Your task to perform on an android device: open app "Cash App" (install if not already installed) Image 0: 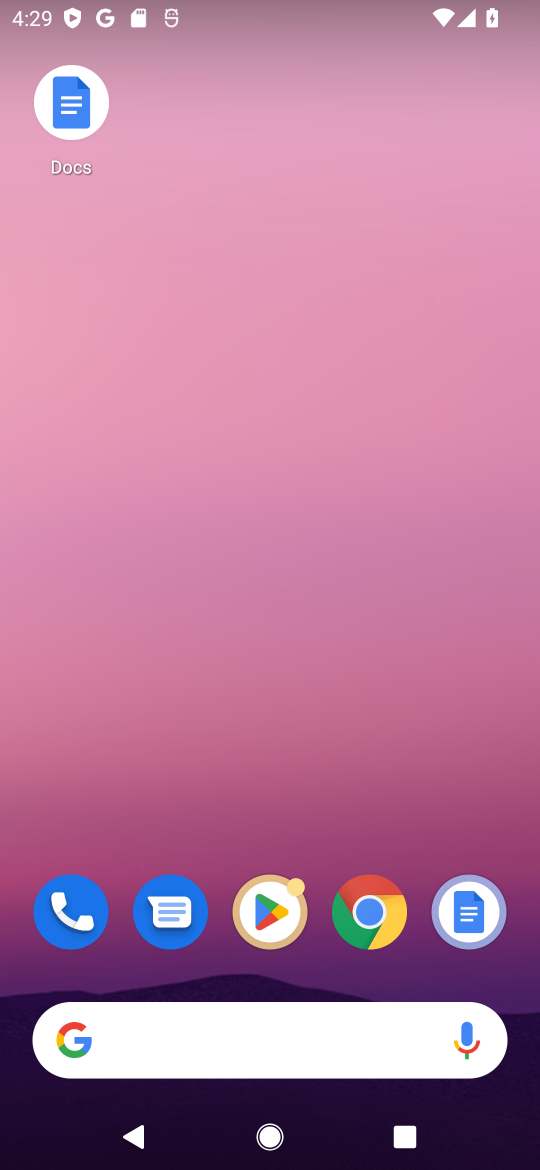
Step 0: drag from (208, 968) to (279, 276)
Your task to perform on an android device: open app "Cash App" (install if not already installed) Image 1: 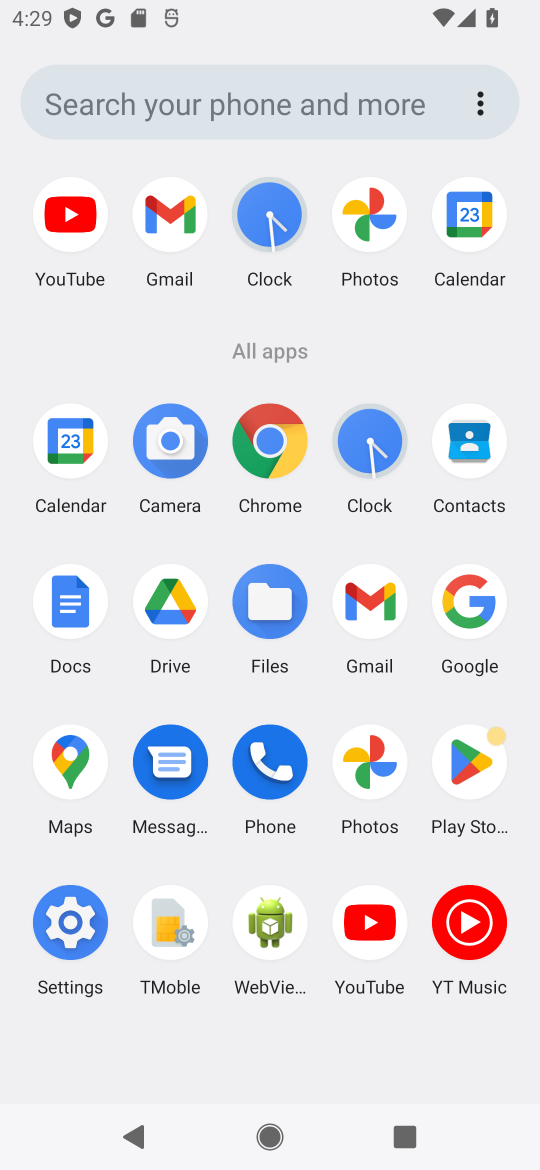
Step 1: click (471, 761)
Your task to perform on an android device: open app "Cash App" (install if not already installed) Image 2: 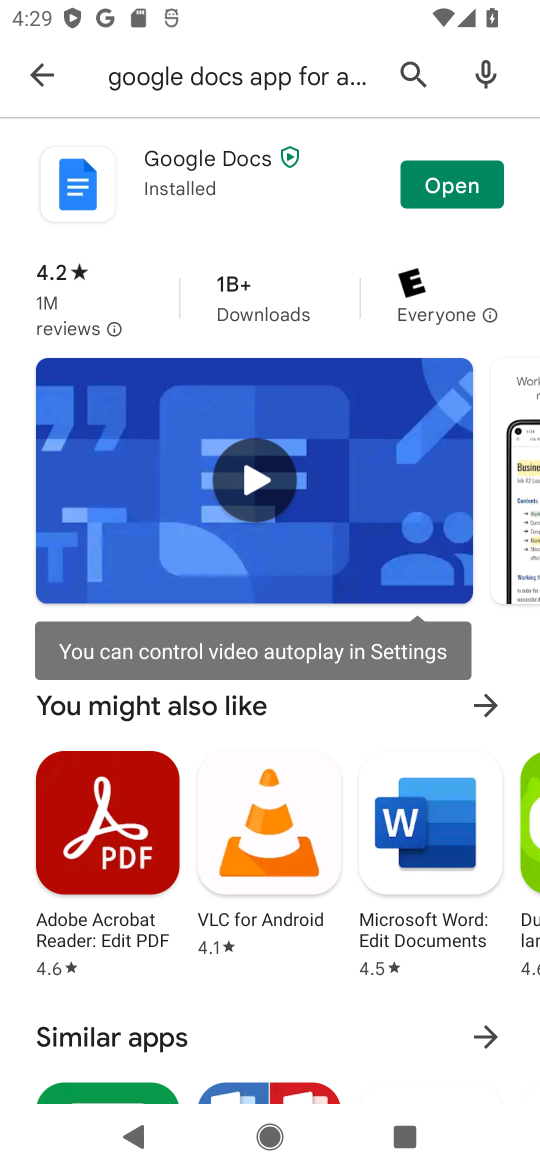
Step 2: click (72, 64)
Your task to perform on an android device: open app "Cash App" (install if not already installed) Image 3: 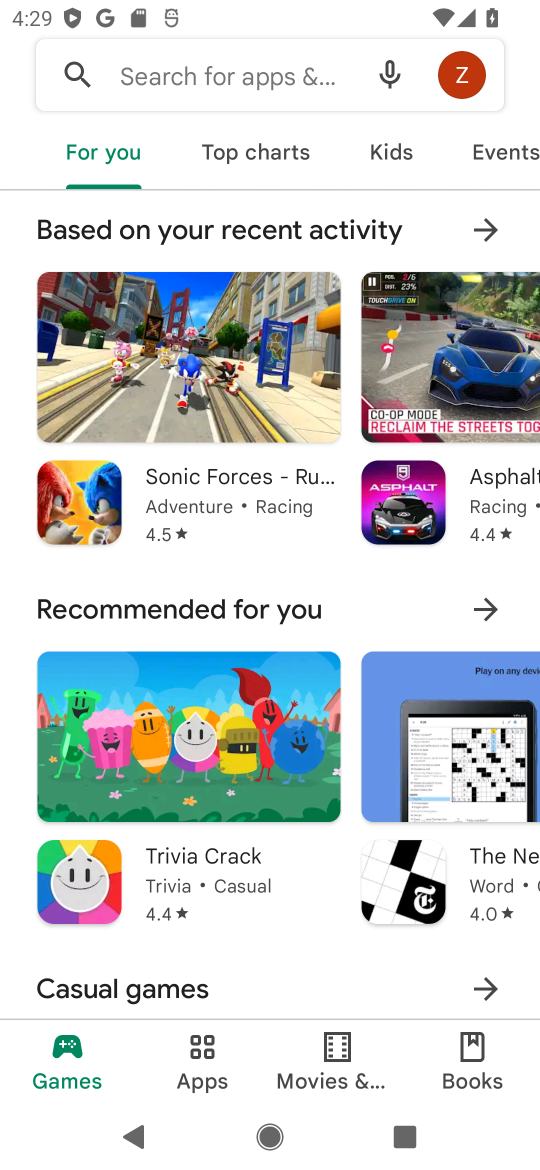
Step 3: click (223, 47)
Your task to perform on an android device: open app "Cash App" (install if not already installed) Image 4: 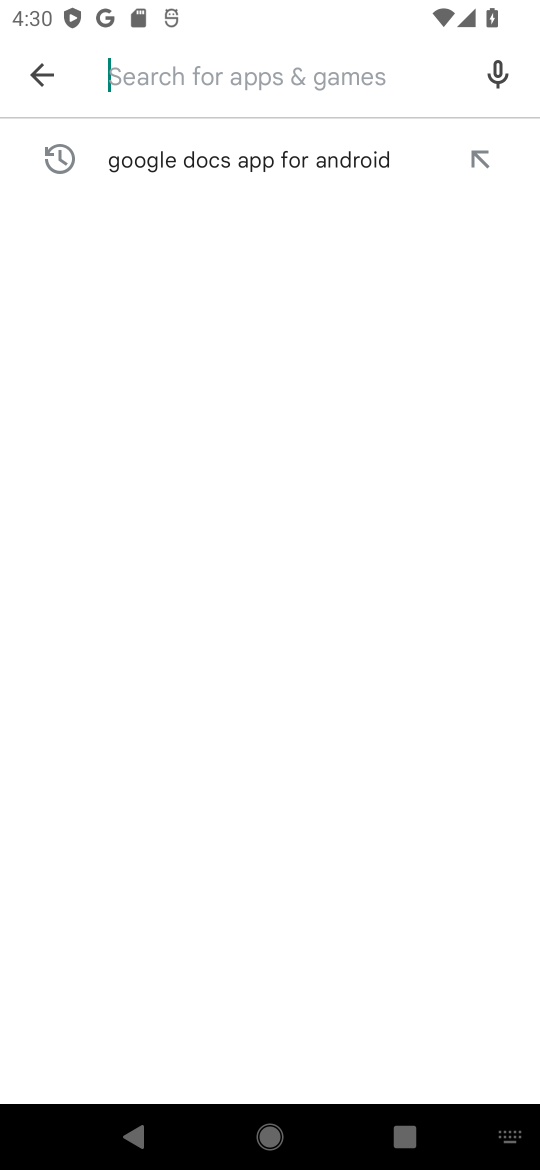
Step 4: type "cash app "
Your task to perform on an android device: open app "Cash App" (install if not already installed) Image 5: 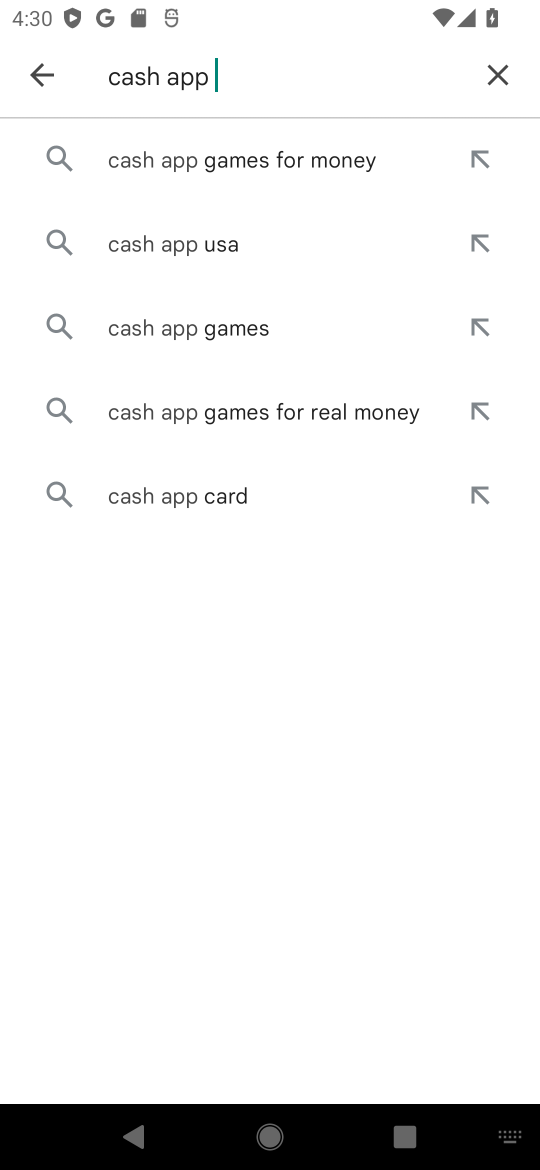
Step 5: click (193, 243)
Your task to perform on an android device: open app "Cash App" (install if not already installed) Image 6: 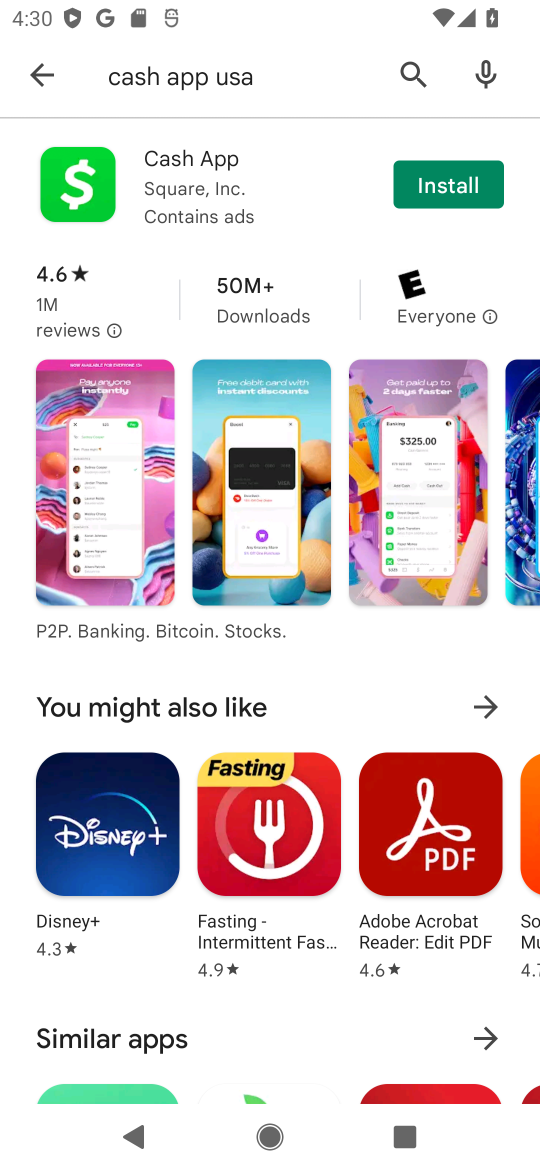
Step 6: click (447, 179)
Your task to perform on an android device: open app "Cash App" (install if not already installed) Image 7: 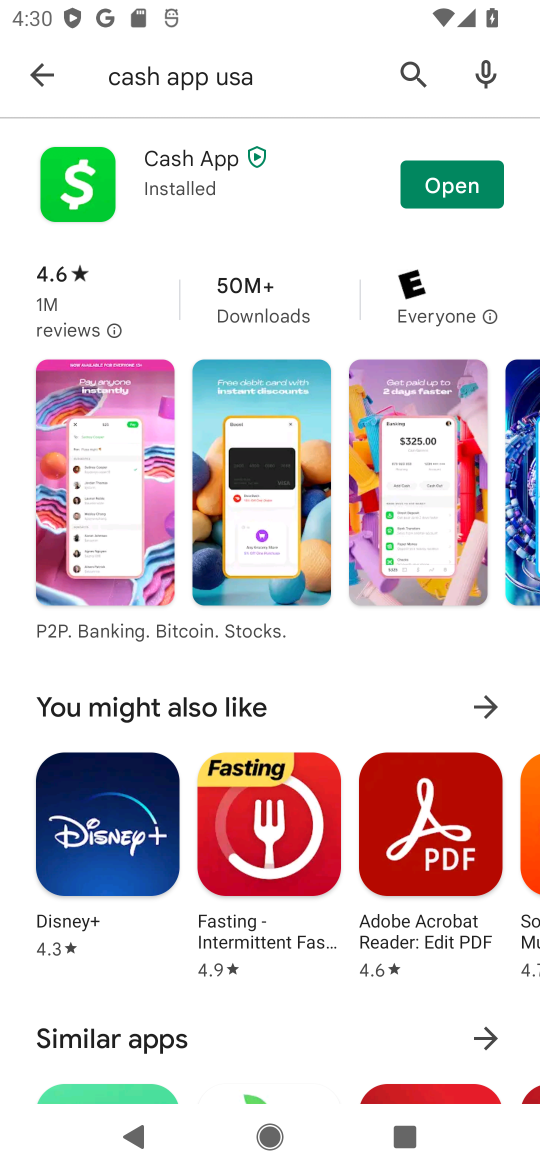
Step 7: click (465, 178)
Your task to perform on an android device: open app "Cash App" (install if not already installed) Image 8: 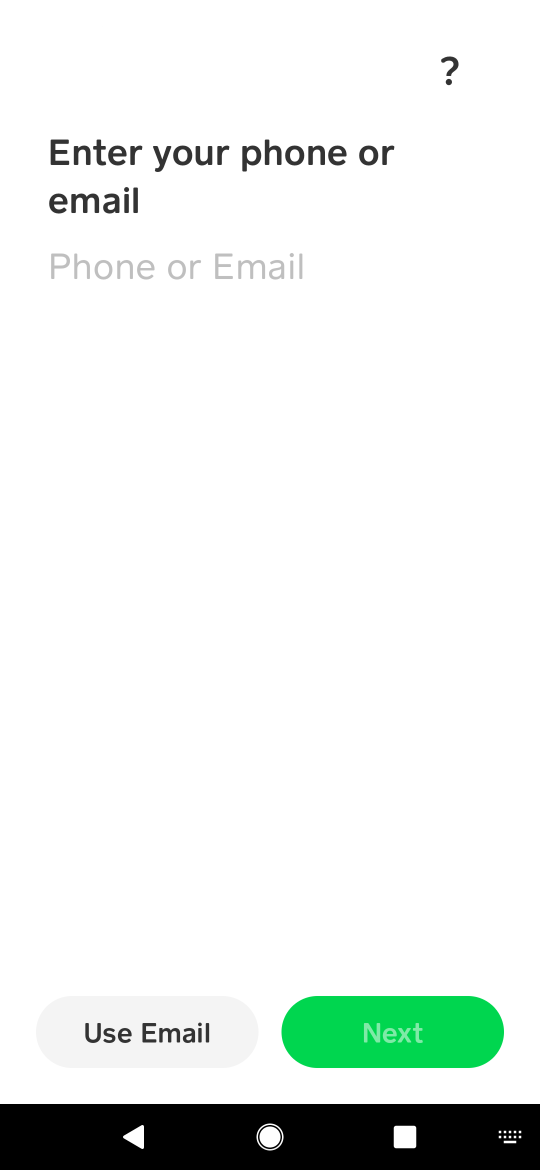
Step 8: task complete